Your task to perform on an android device: Open Youtube and go to the subscriptions tab Image 0: 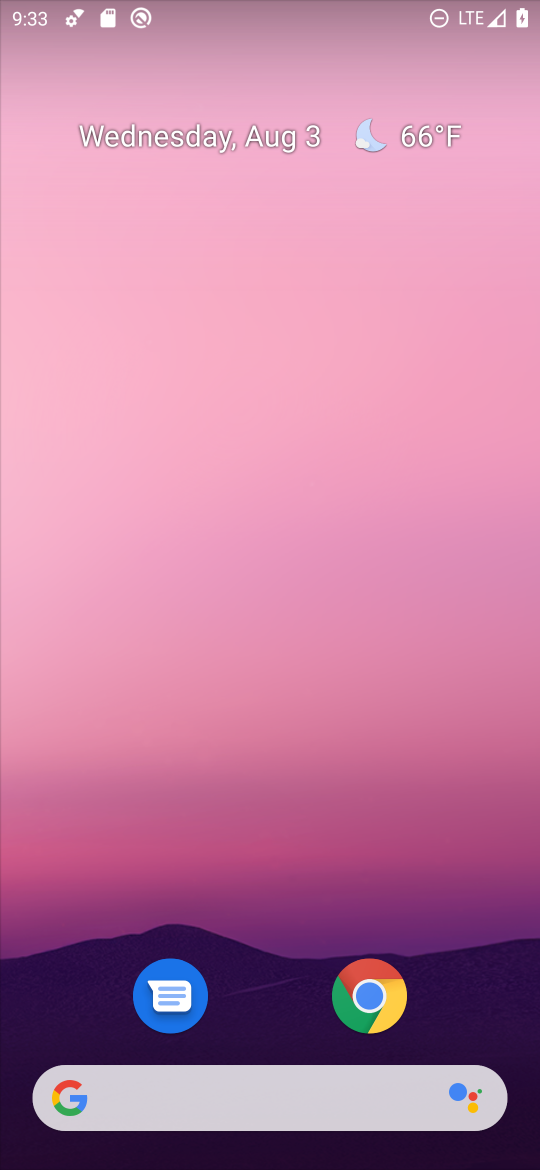
Step 0: drag from (270, 887) to (294, 25)
Your task to perform on an android device: Open Youtube and go to the subscriptions tab Image 1: 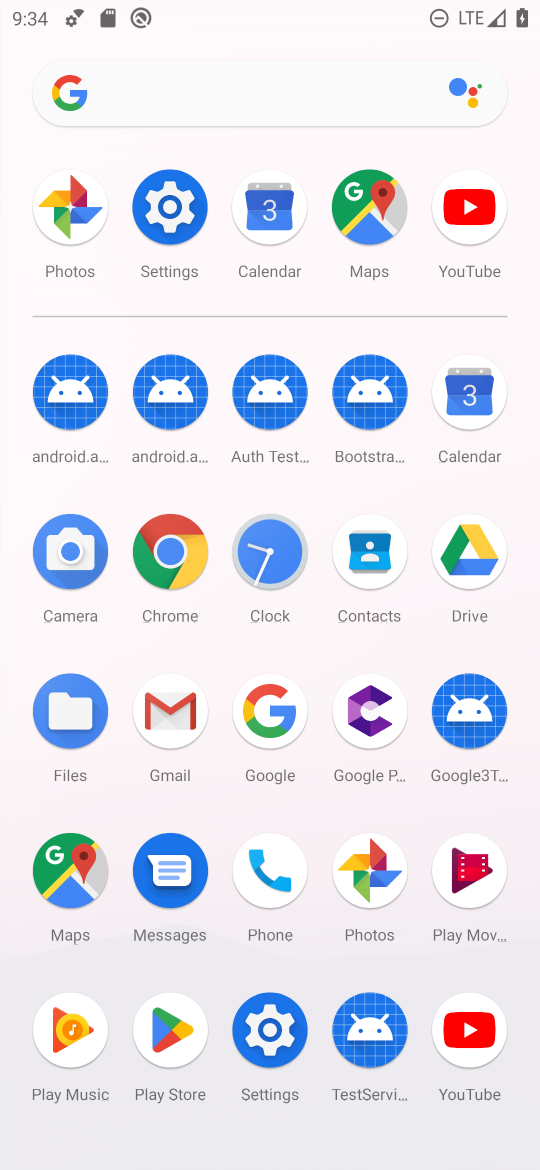
Step 1: click (471, 218)
Your task to perform on an android device: Open Youtube and go to the subscriptions tab Image 2: 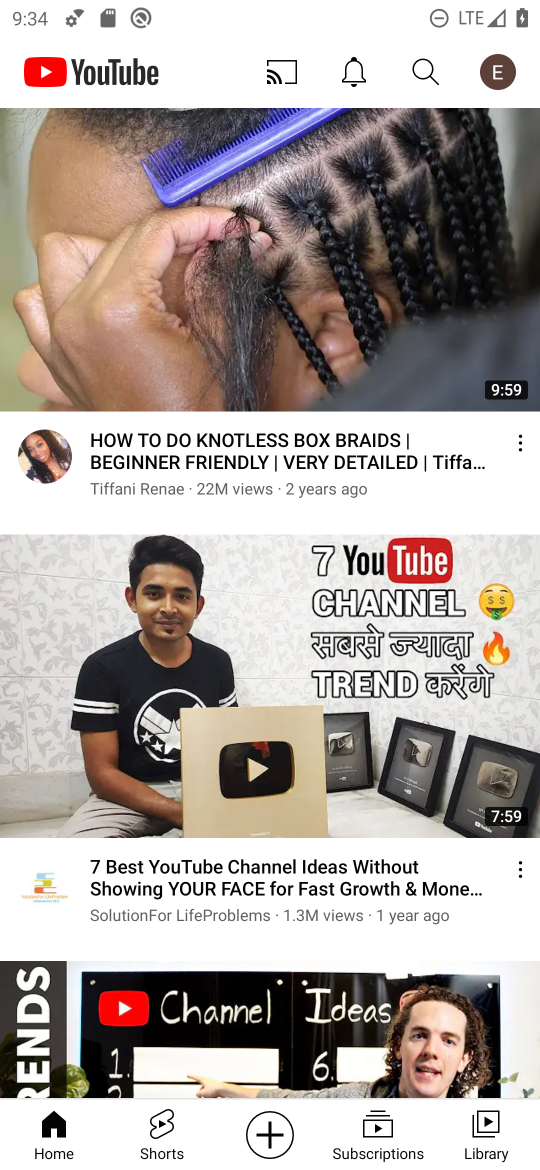
Step 2: click (362, 1132)
Your task to perform on an android device: Open Youtube and go to the subscriptions tab Image 3: 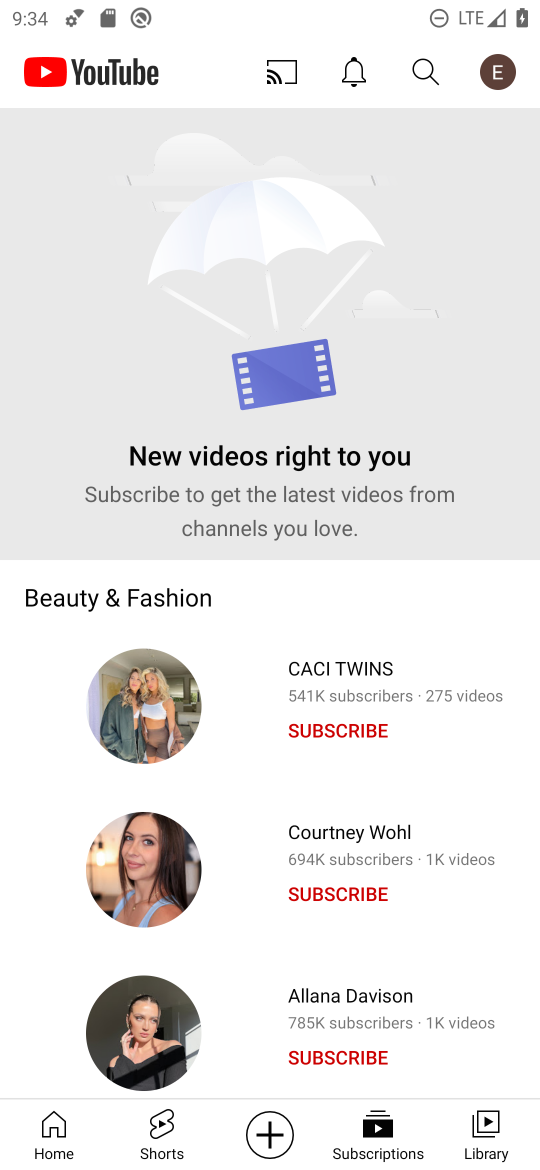
Step 3: task complete